Your task to perform on an android device: empty trash in the gmail app Image 0: 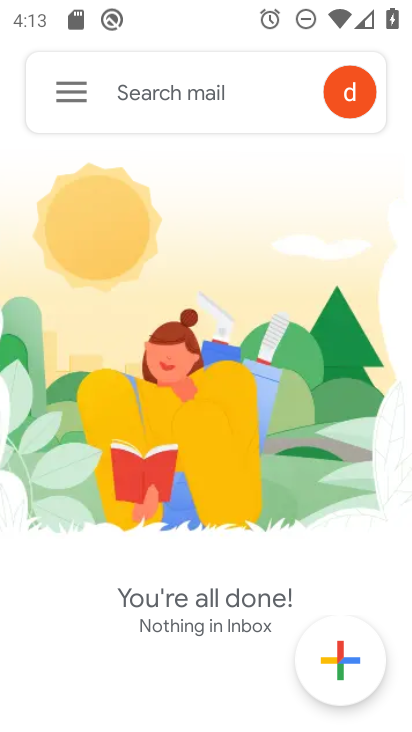
Step 0: click (58, 71)
Your task to perform on an android device: empty trash in the gmail app Image 1: 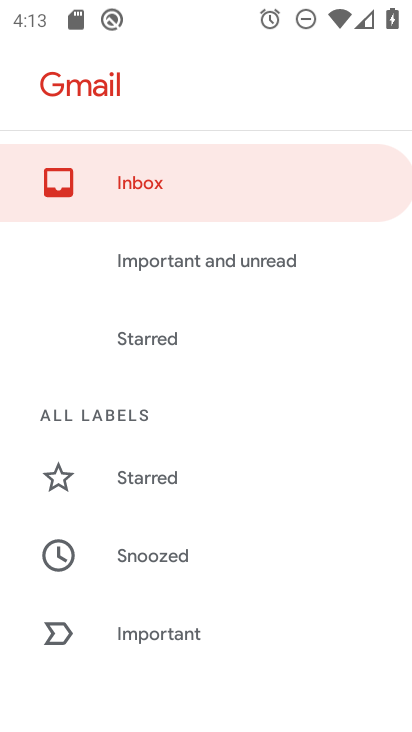
Step 1: drag from (163, 585) to (233, 154)
Your task to perform on an android device: empty trash in the gmail app Image 2: 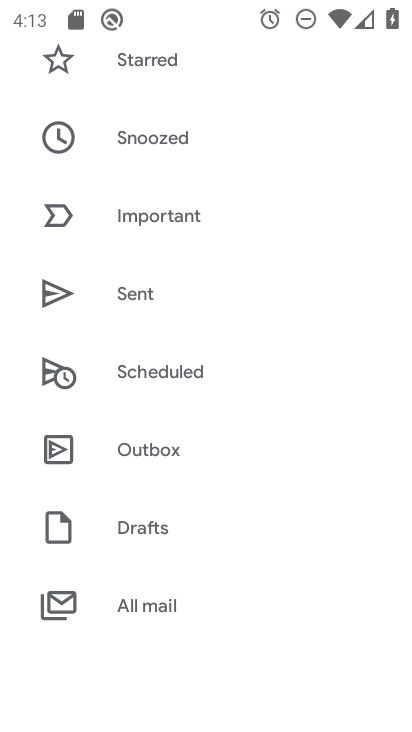
Step 2: drag from (193, 578) to (223, 130)
Your task to perform on an android device: empty trash in the gmail app Image 3: 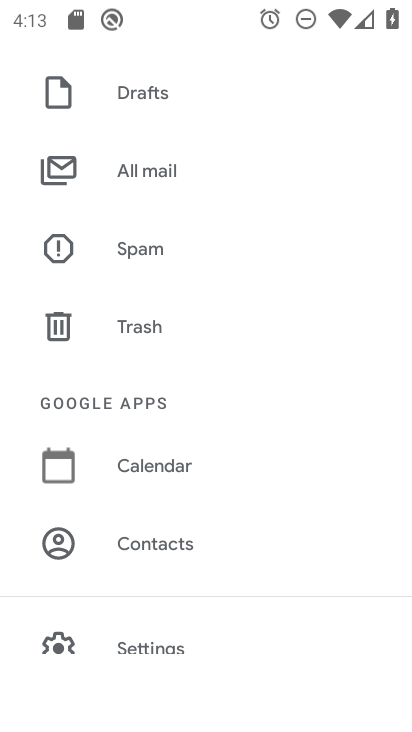
Step 3: click (155, 333)
Your task to perform on an android device: empty trash in the gmail app Image 4: 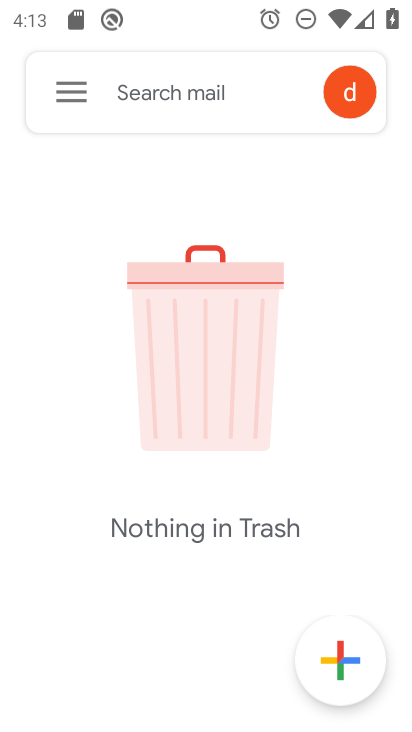
Step 4: task complete